Your task to perform on an android device: Open Android settings Image 0: 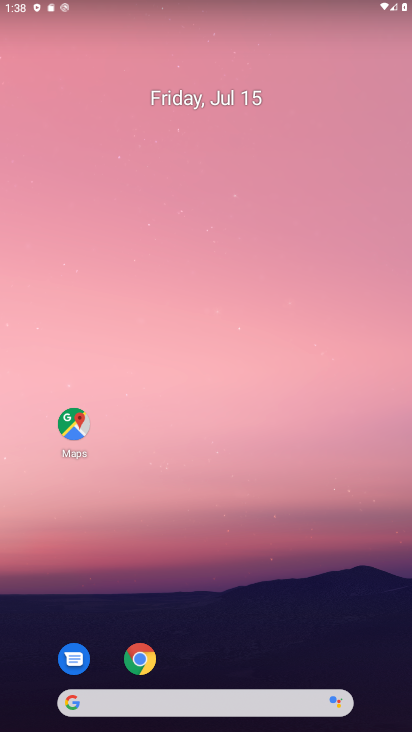
Step 0: drag from (243, 684) to (247, 327)
Your task to perform on an android device: Open Android settings Image 1: 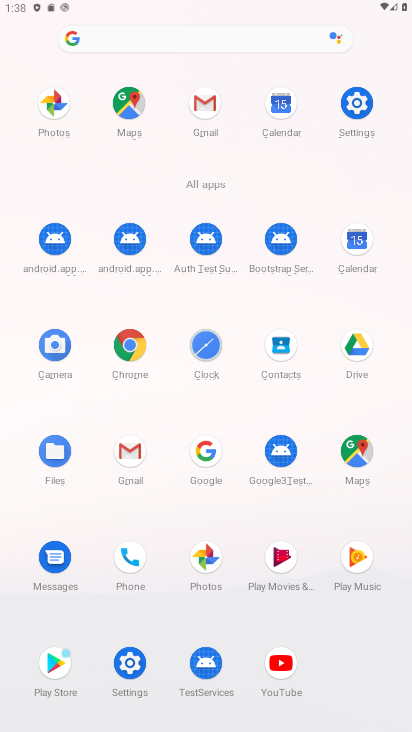
Step 1: click (361, 98)
Your task to perform on an android device: Open Android settings Image 2: 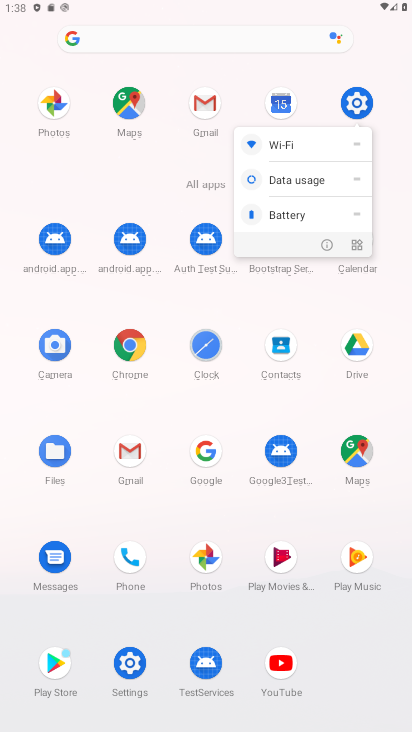
Step 2: click (361, 98)
Your task to perform on an android device: Open Android settings Image 3: 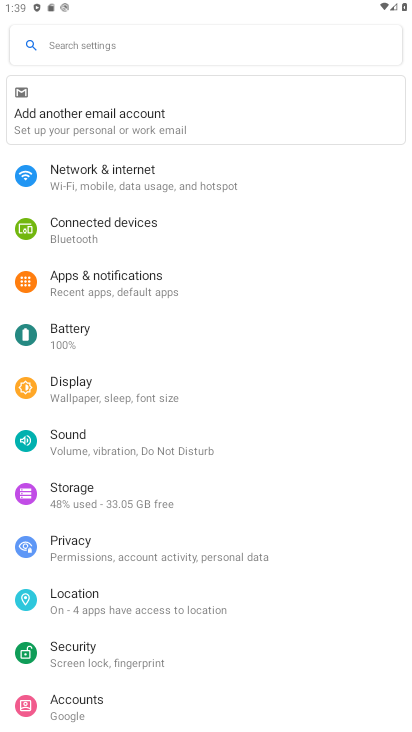
Step 3: task complete